Your task to perform on an android device: Search for seafood restaurants on Google Maps Image 0: 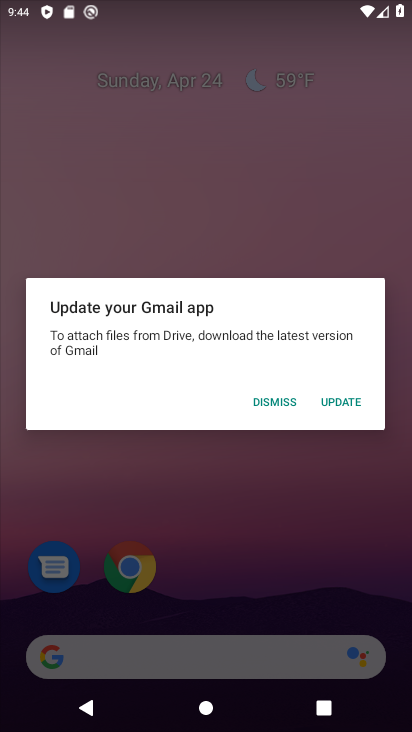
Step 0: press home button
Your task to perform on an android device: Search for seafood restaurants on Google Maps Image 1: 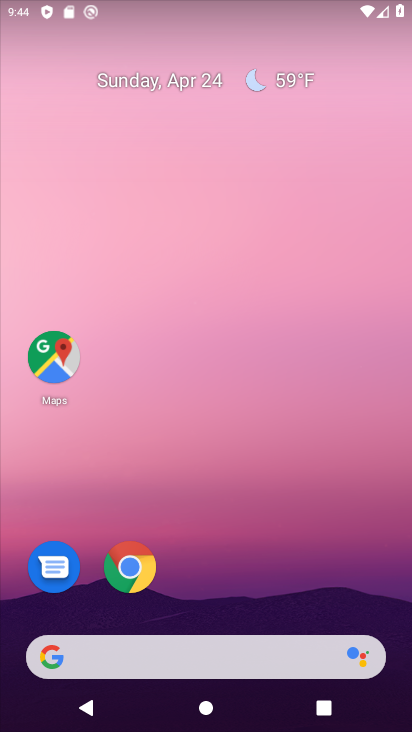
Step 1: drag from (389, 628) to (351, 167)
Your task to perform on an android device: Search for seafood restaurants on Google Maps Image 2: 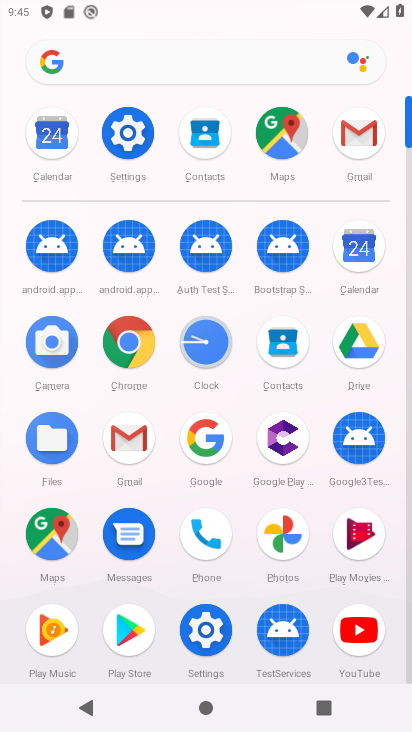
Step 2: click (61, 524)
Your task to perform on an android device: Search for seafood restaurants on Google Maps Image 3: 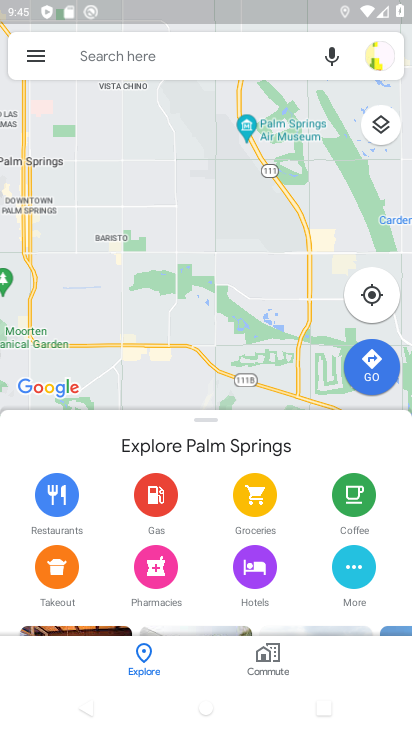
Step 3: click (128, 58)
Your task to perform on an android device: Search for seafood restaurants on Google Maps Image 4: 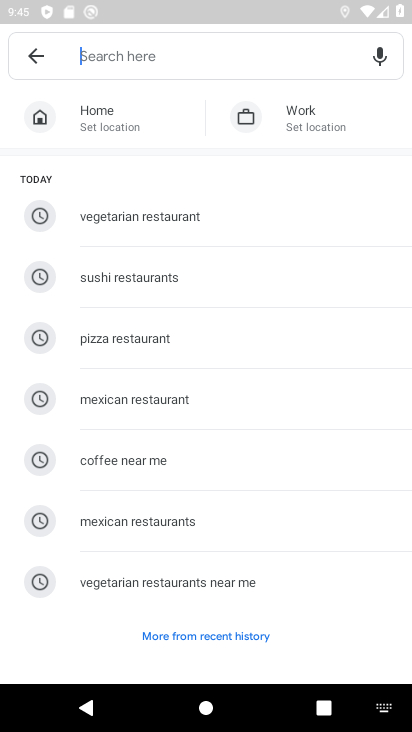
Step 4: type "seafood restaurants "
Your task to perform on an android device: Search for seafood restaurants on Google Maps Image 5: 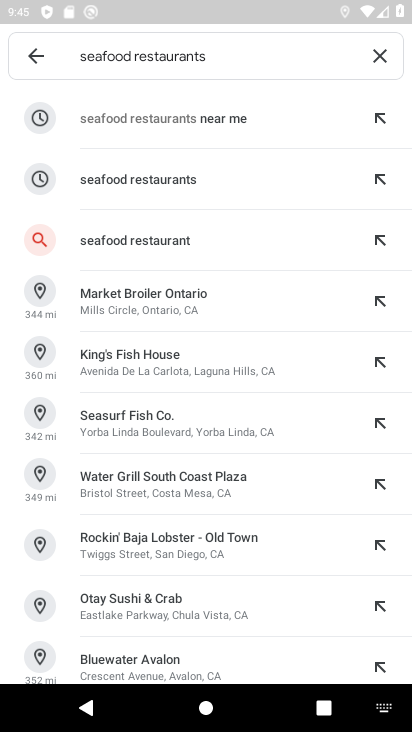
Step 5: click (128, 177)
Your task to perform on an android device: Search for seafood restaurants on Google Maps Image 6: 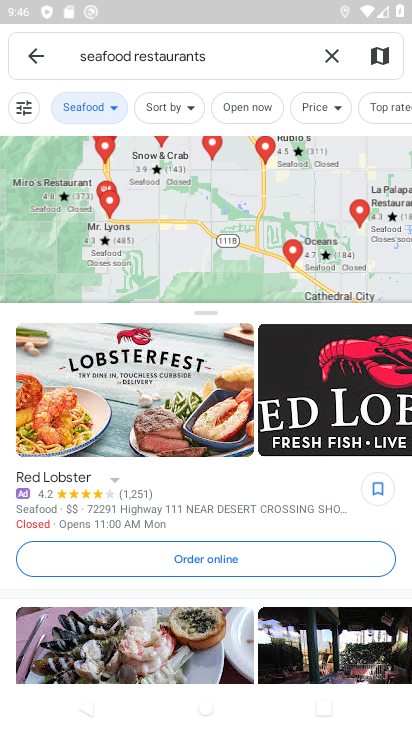
Step 6: task complete